Your task to perform on an android device: Open Android settings Image 0: 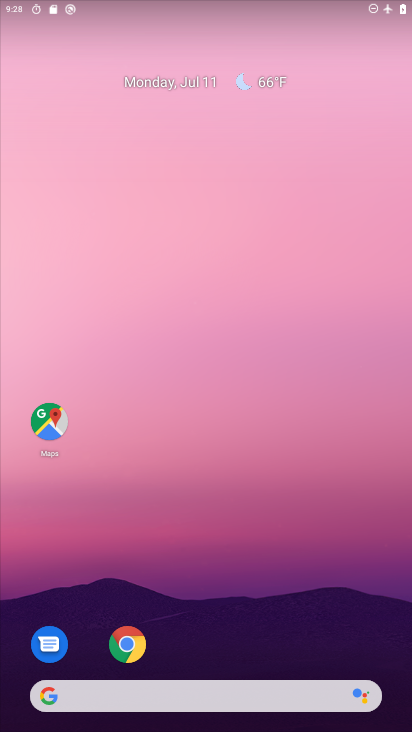
Step 0: drag from (339, 609) to (319, 117)
Your task to perform on an android device: Open Android settings Image 1: 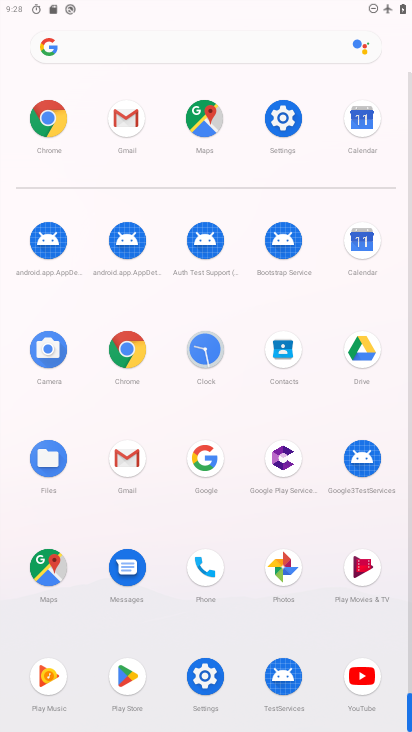
Step 1: click (291, 117)
Your task to perform on an android device: Open Android settings Image 2: 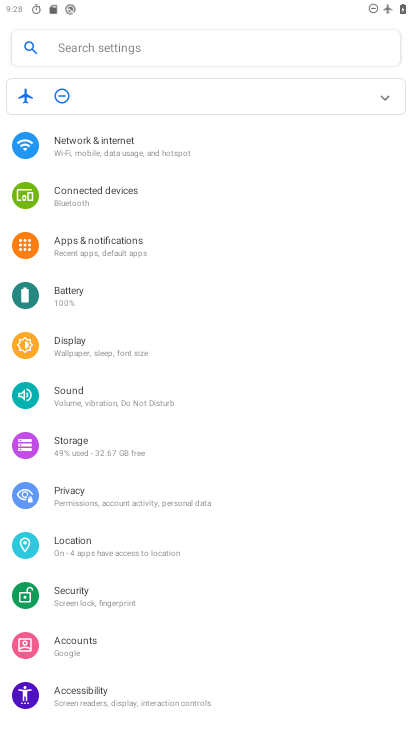
Step 2: task complete